Your task to perform on an android device: Open Amazon Image 0: 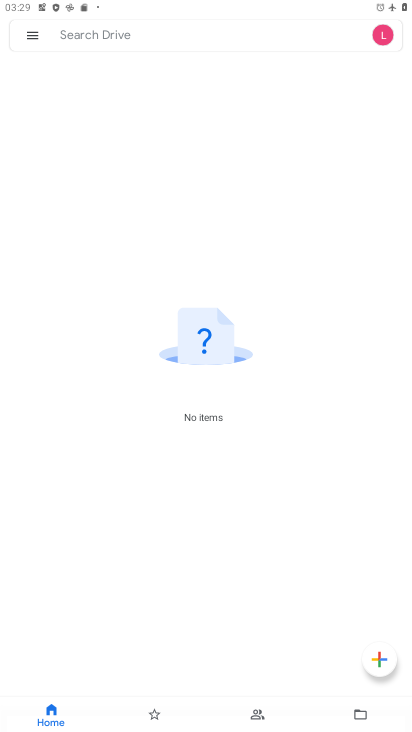
Step 0: press home button
Your task to perform on an android device: Open Amazon Image 1: 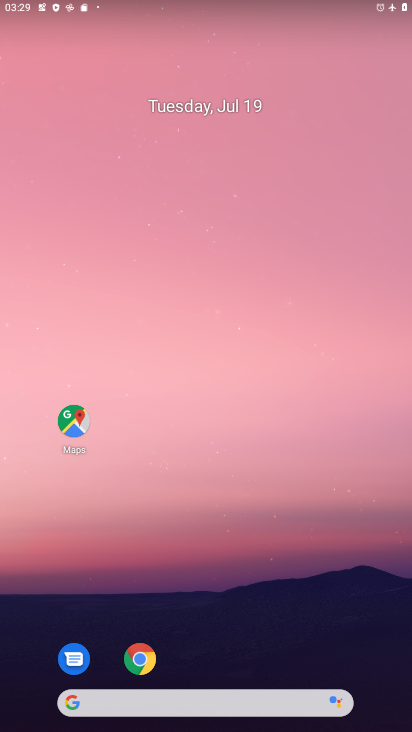
Step 1: click (161, 652)
Your task to perform on an android device: Open Amazon Image 2: 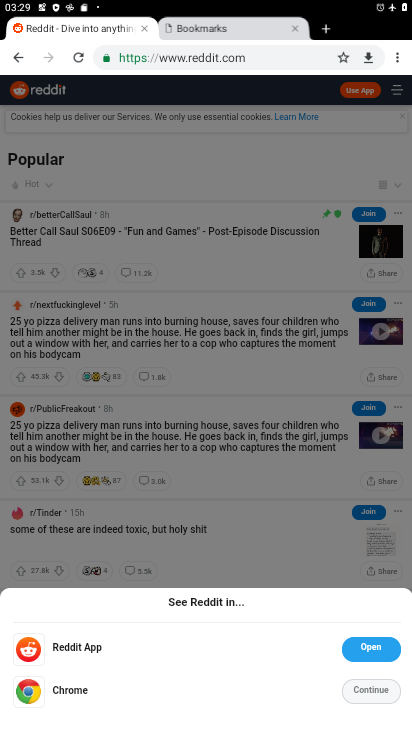
Step 2: click (256, 59)
Your task to perform on an android device: Open Amazon Image 3: 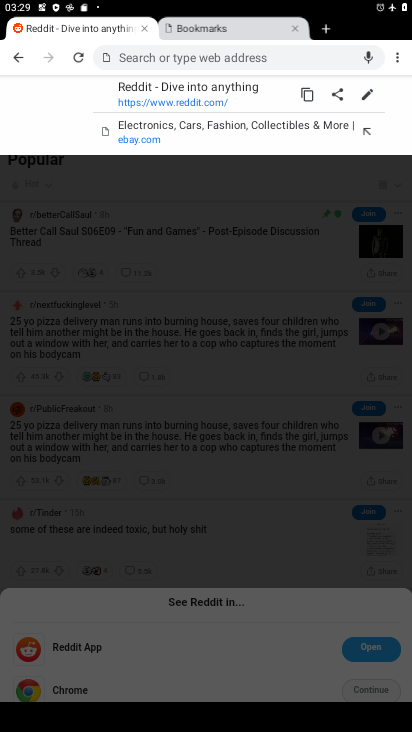
Step 3: type "Amazon"
Your task to perform on an android device: Open Amazon Image 4: 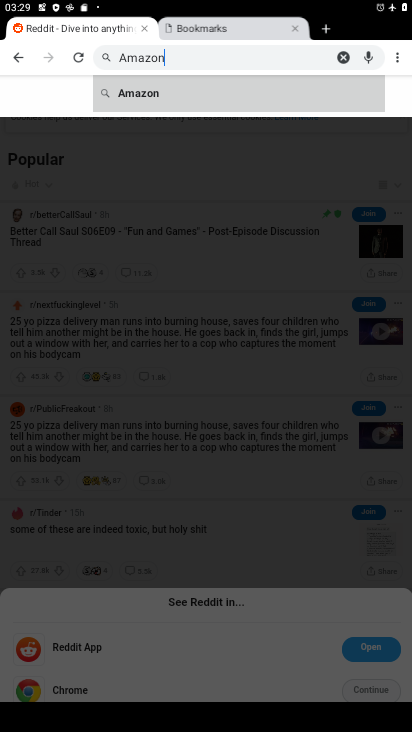
Step 4: type ""
Your task to perform on an android device: Open Amazon Image 5: 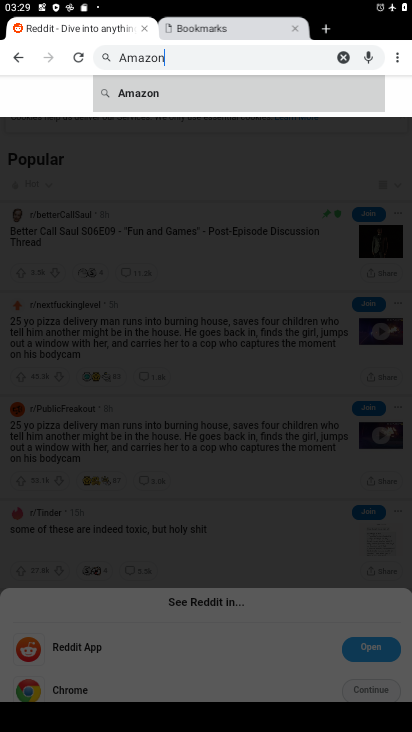
Step 5: drag from (354, 84) to (331, 267)
Your task to perform on an android device: Open Amazon Image 6: 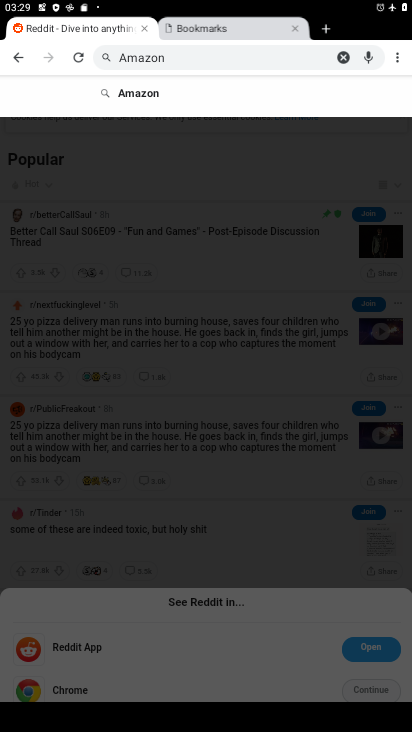
Step 6: drag from (310, 3) to (315, 405)
Your task to perform on an android device: Open Amazon Image 7: 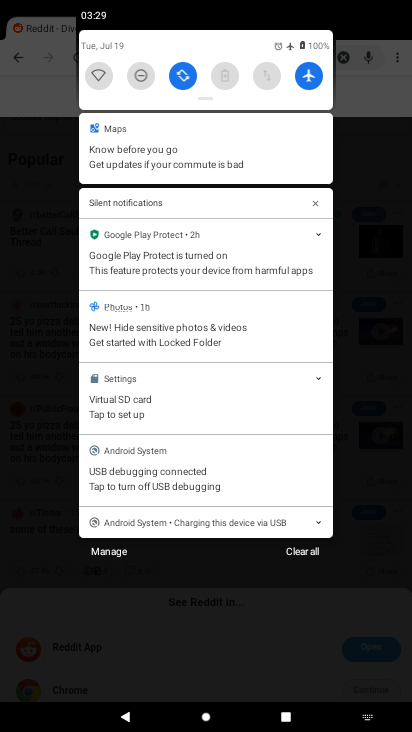
Step 7: click (309, 67)
Your task to perform on an android device: Open Amazon Image 8: 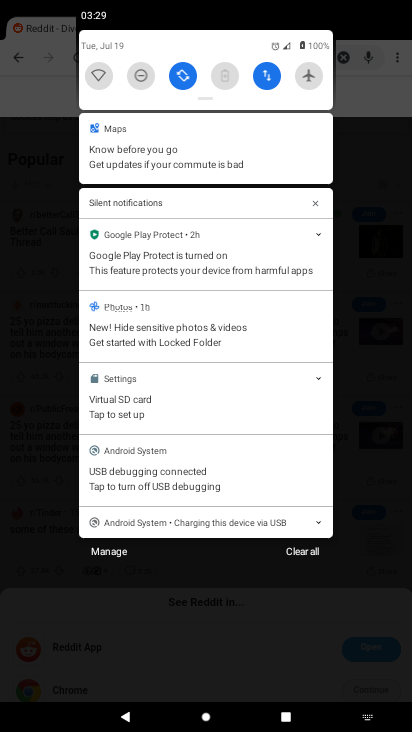
Step 8: drag from (278, 627) to (287, 151)
Your task to perform on an android device: Open Amazon Image 9: 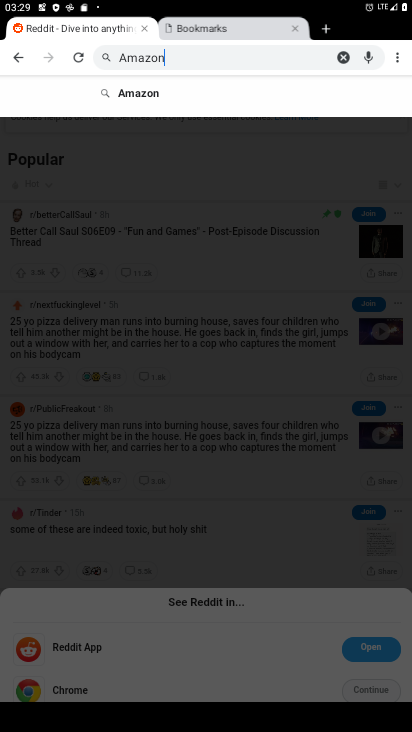
Step 9: click (185, 89)
Your task to perform on an android device: Open Amazon Image 10: 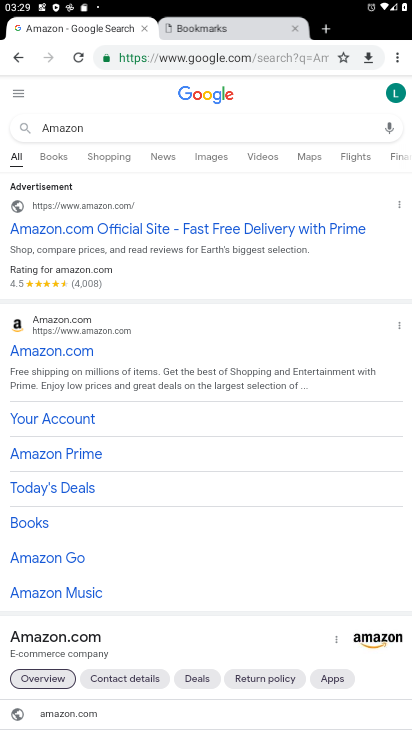
Step 10: click (88, 230)
Your task to perform on an android device: Open Amazon Image 11: 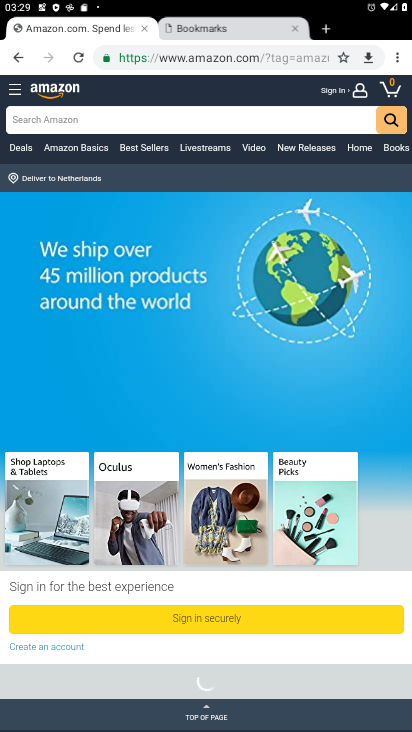
Step 11: task complete